Your task to perform on an android device: clear all cookies in the chrome app Image 0: 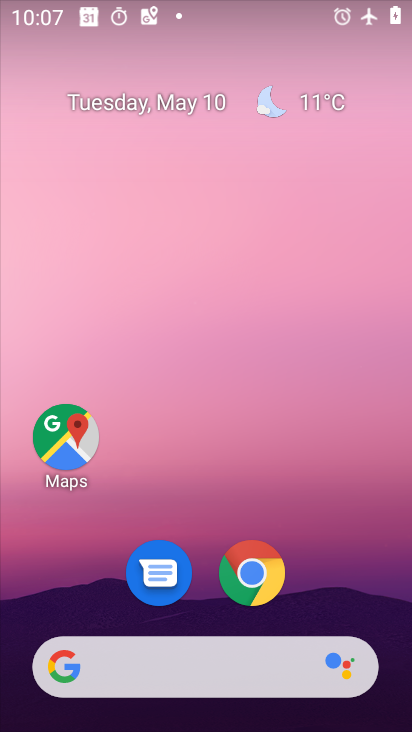
Step 0: click (248, 575)
Your task to perform on an android device: clear all cookies in the chrome app Image 1: 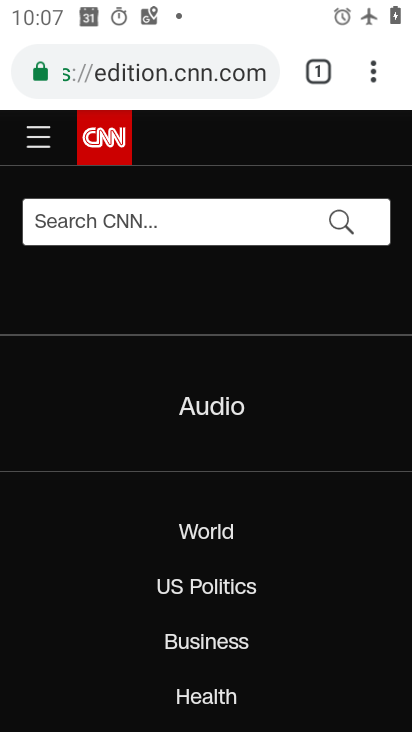
Step 1: drag from (373, 74) to (144, 569)
Your task to perform on an android device: clear all cookies in the chrome app Image 2: 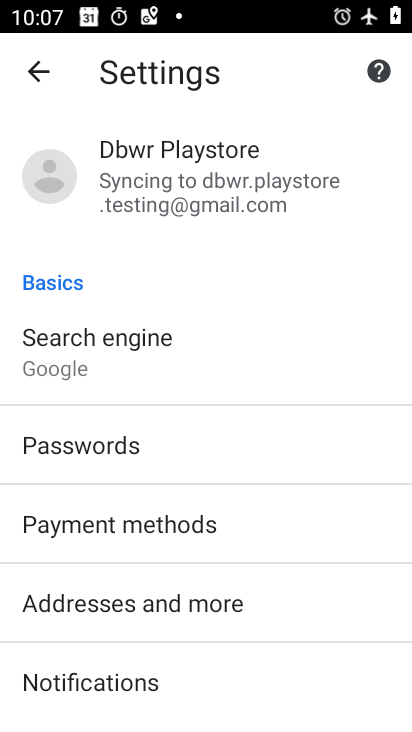
Step 2: drag from (204, 579) to (162, 132)
Your task to perform on an android device: clear all cookies in the chrome app Image 3: 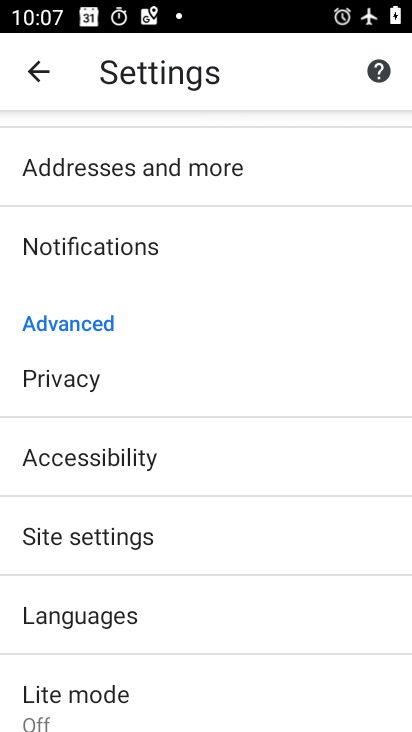
Step 3: click (44, 383)
Your task to perform on an android device: clear all cookies in the chrome app Image 4: 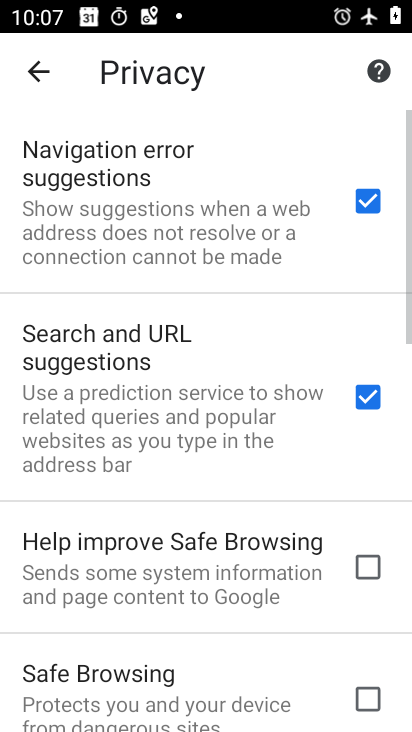
Step 4: drag from (90, 632) to (61, 215)
Your task to perform on an android device: clear all cookies in the chrome app Image 5: 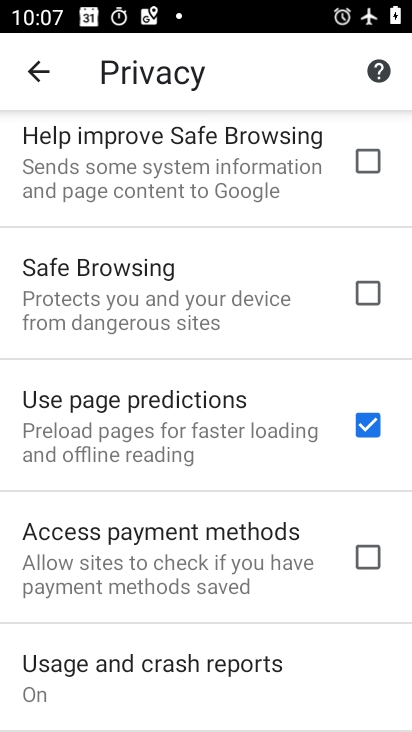
Step 5: drag from (57, 627) to (59, 239)
Your task to perform on an android device: clear all cookies in the chrome app Image 6: 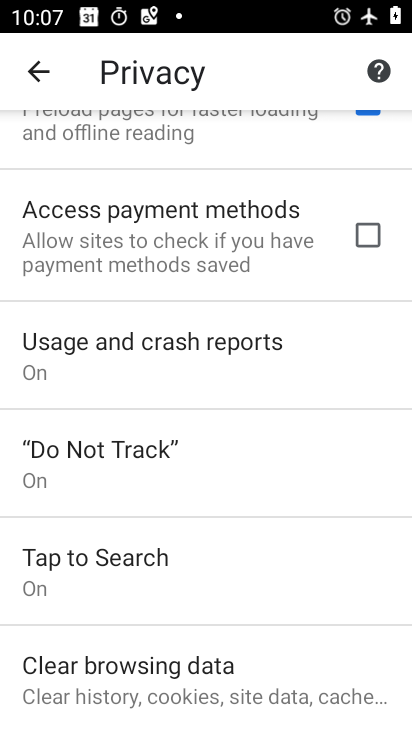
Step 6: drag from (97, 558) to (87, 209)
Your task to perform on an android device: clear all cookies in the chrome app Image 7: 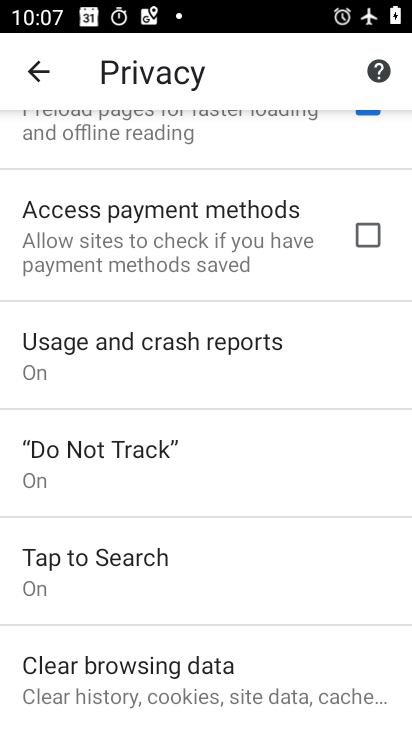
Step 7: click (182, 666)
Your task to perform on an android device: clear all cookies in the chrome app Image 8: 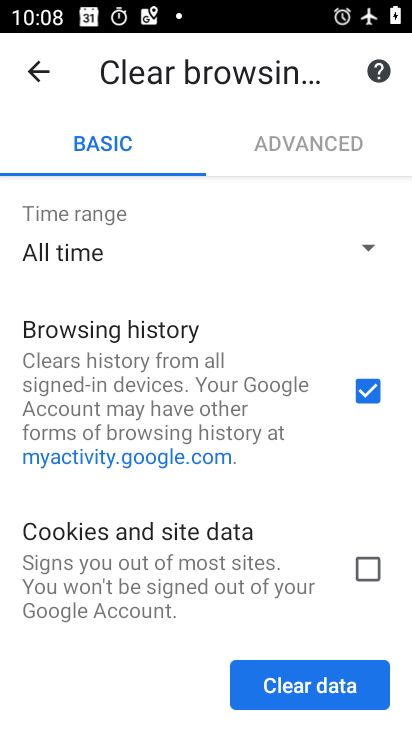
Step 8: click (366, 389)
Your task to perform on an android device: clear all cookies in the chrome app Image 9: 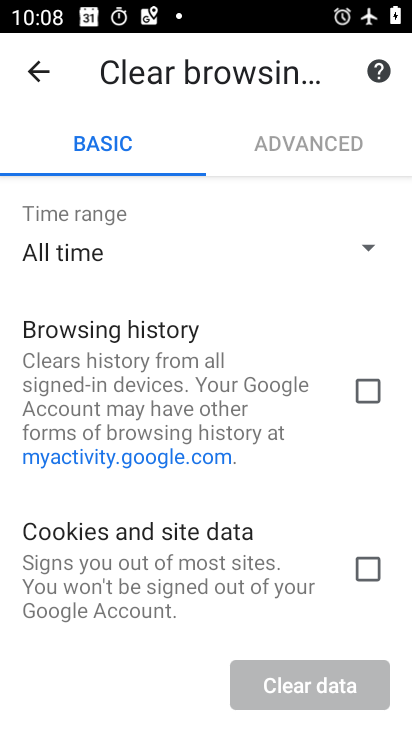
Step 9: click (368, 575)
Your task to perform on an android device: clear all cookies in the chrome app Image 10: 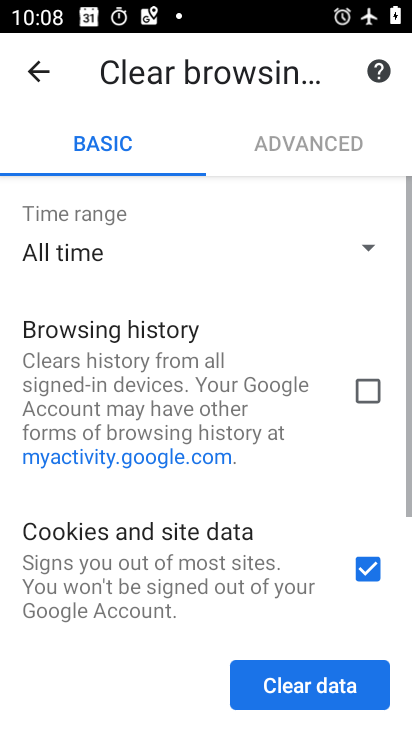
Step 10: drag from (86, 585) to (71, 291)
Your task to perform on an android device: clear all cookies in the chrome app Image 11: 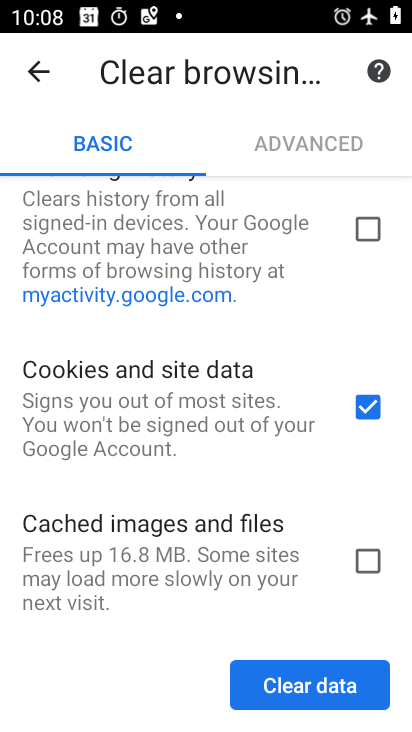
Step 11: click (295, 688)
Your task to perform on an android device: clear all cookies in the chrome app Image 12: 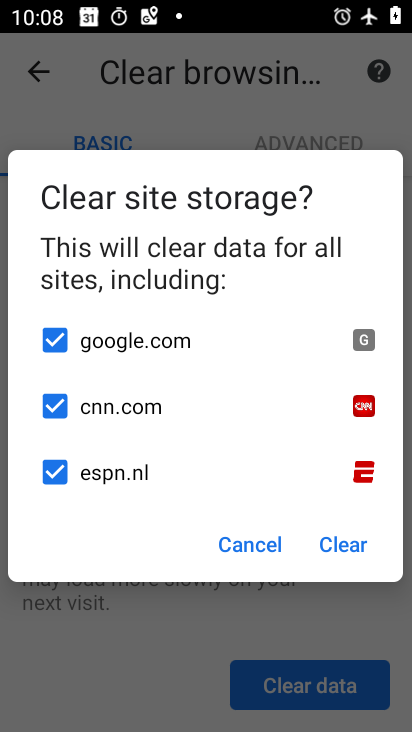
Step 12: click (343, 549)
Your task to perform on an android device: clear all cookies in the chrome app Image 13: 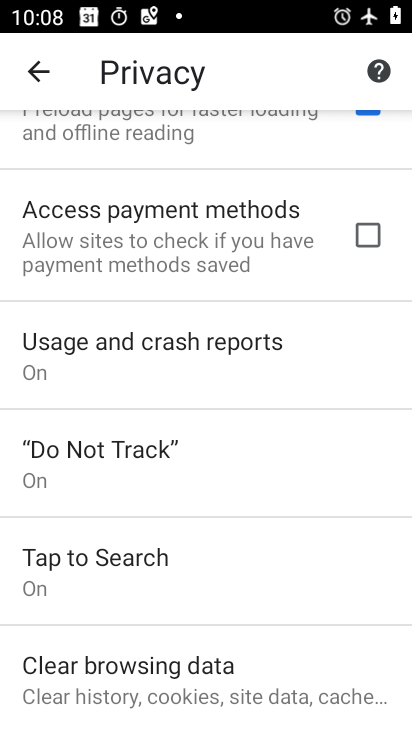
Step 13: task complete